Your task to perform on an android device: Open privacy settings Image 0: 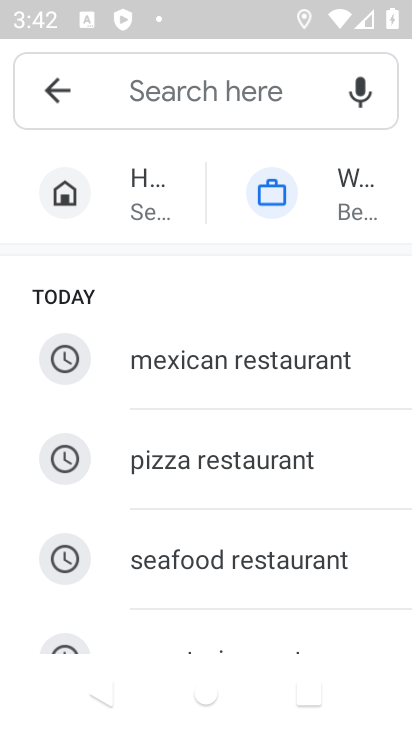
Step 0: task complete